Your task to perform on an android device: change the upload size in google photos Image 0: 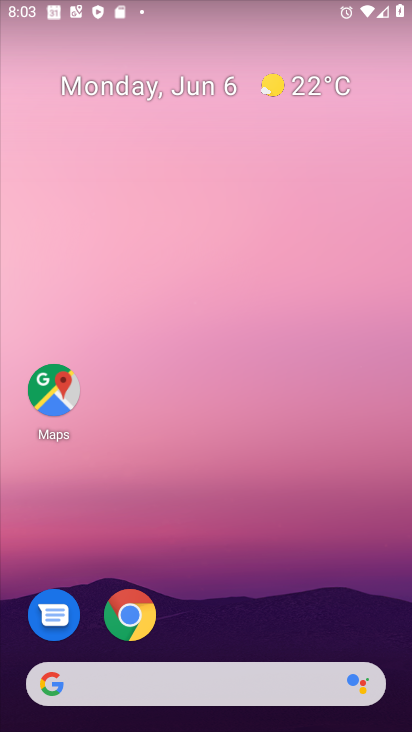
Step 0: drag from (380, 611) to (354, 61)
Your task to perform on an android device: change the upload size in google photos Image 1: 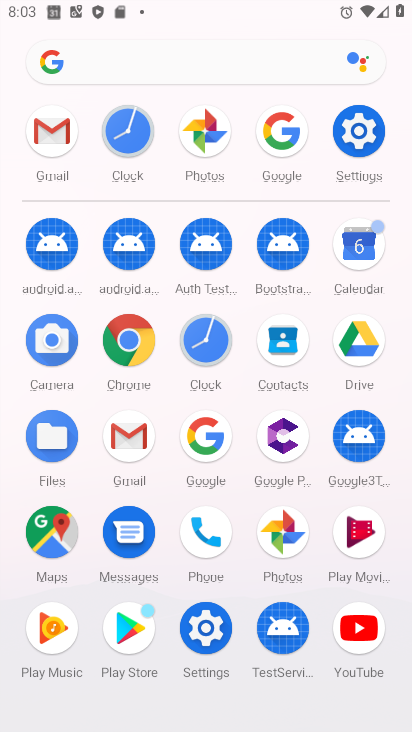
Step 1: click (271, 538)
Your task to perform on an android device: change the upload size in google photos Image 2: 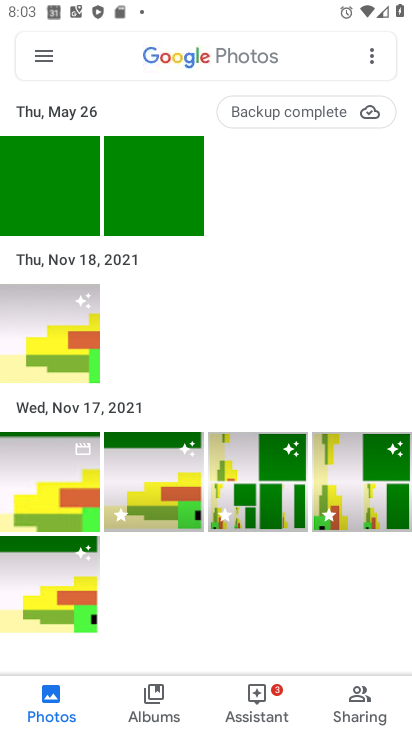
Step 2: click (30, 58)
Your task to perform on an android device: change the upload size in google photos Image 3: 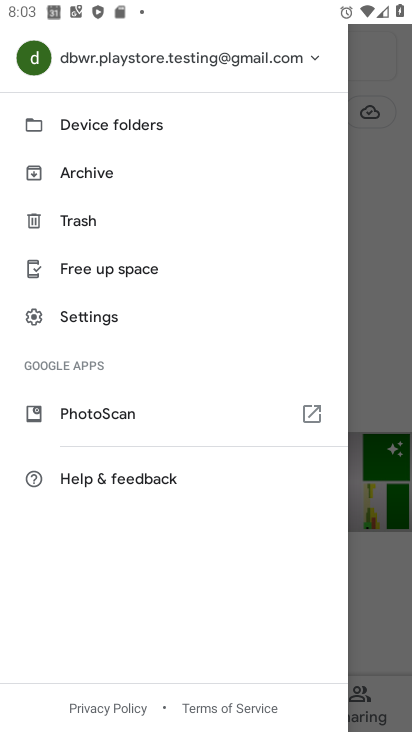
Step 3: click (84, 314)
Your task to perform on an android device: change the upload size in google photos Image 4: 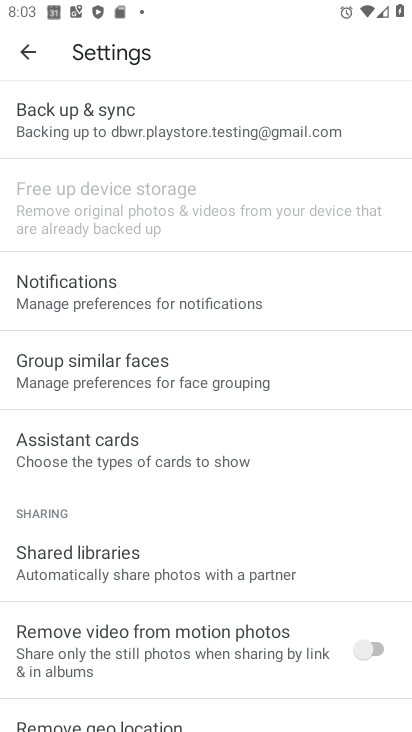
Step 4: click (72, 124)
Your task to perform on an android device: change the upload size in google photos Image 5: 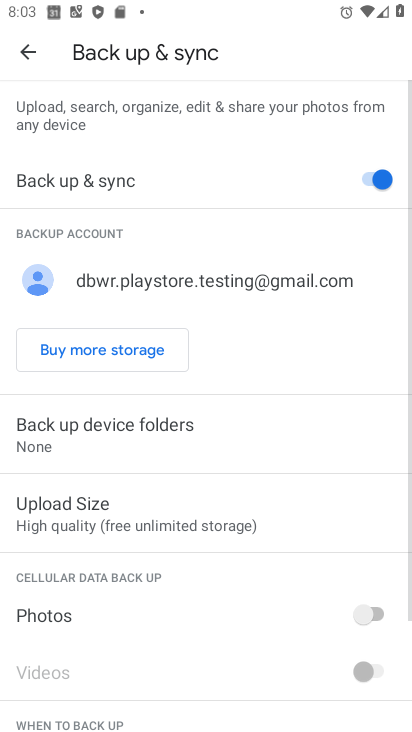
Step 5: click (100, 524)
Your task to perform on an android device: change the upload size in google photos Image 6: 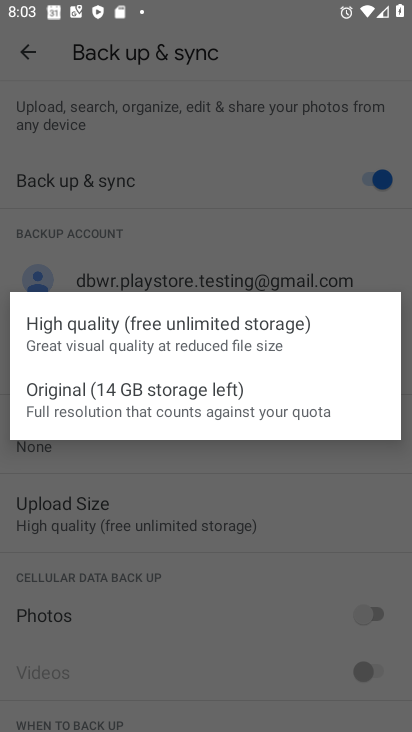
Step 6: click (71, 389)
Your task to perform on an android device: change the upload size in google photos Image 7: 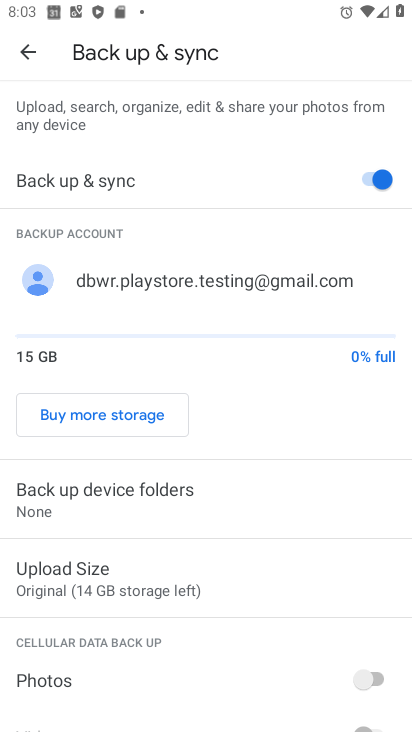
Step 7: task complete